Your task to perform on an android device: Go to battery settings Image 0: 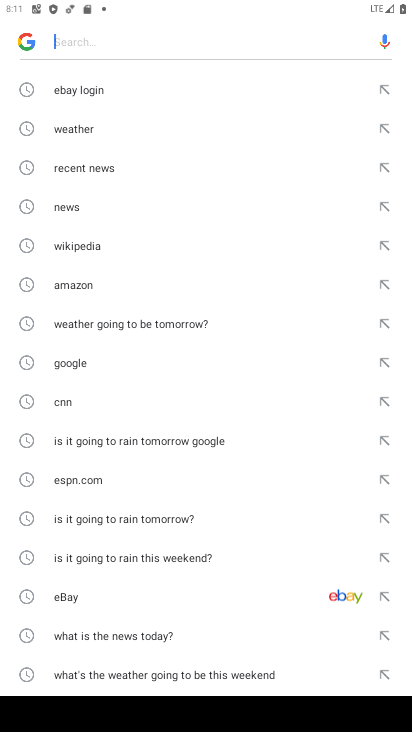
Step 0: press home button
Your task to perform on an android device: Go to battery settings Image 1: 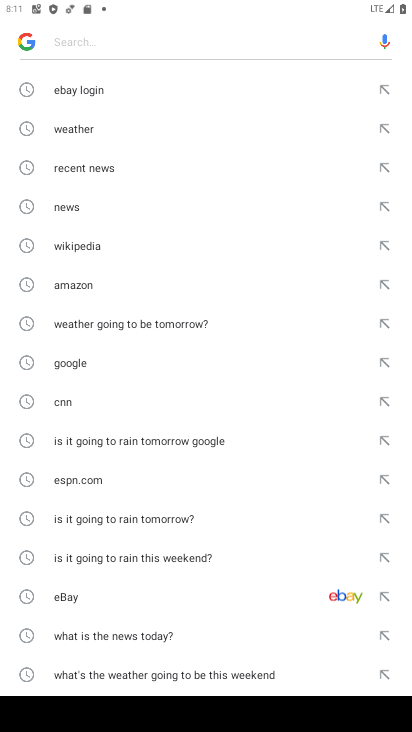
Step 1: press home button
Your task to perform on an android device: Go to battery settings Image 2: 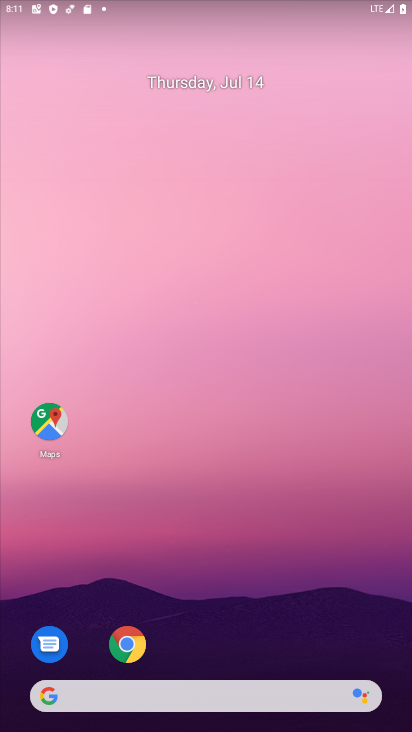
Step 2: drag from (176, 659) to (199, 101)
Your task to perform on an android device: Go to battery settings Image 3: 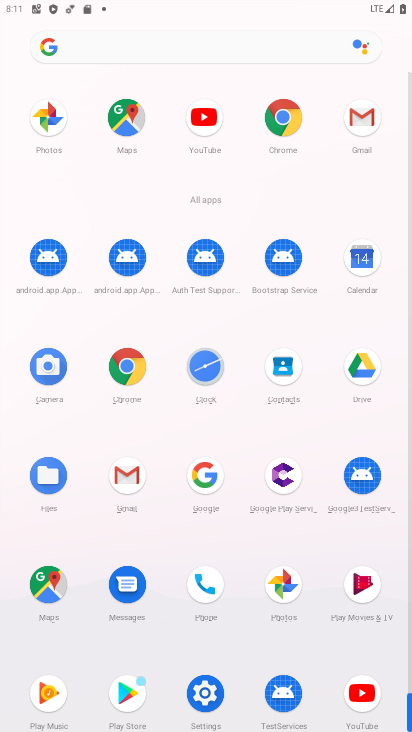
Step 3: drag from (164, 659) to (187, 421)
Your task to perform on an android device: Go to battery settings Image 4: 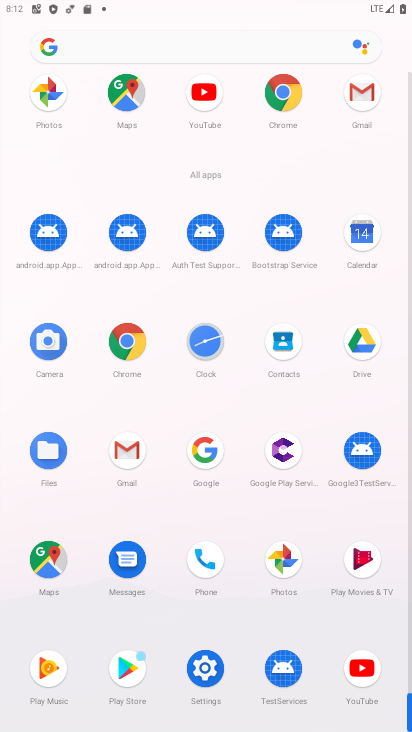
Step 4: click (208, 673)
Your task to perform on an android device: Go to battery settings Image 5: 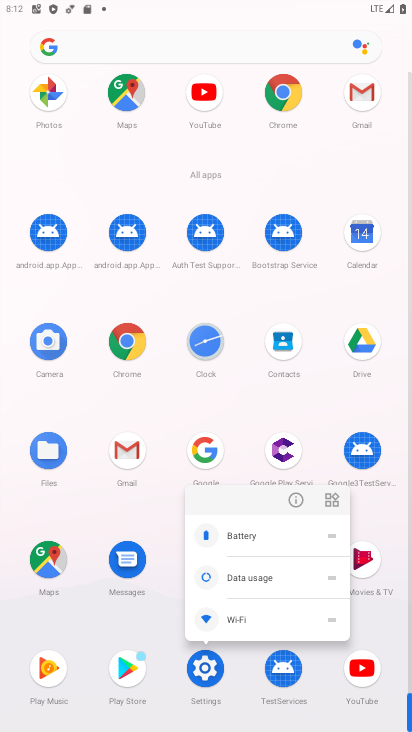
Step 5: click (295, 500)
Your task to perform on an android device: Go to battery settings Image 6: 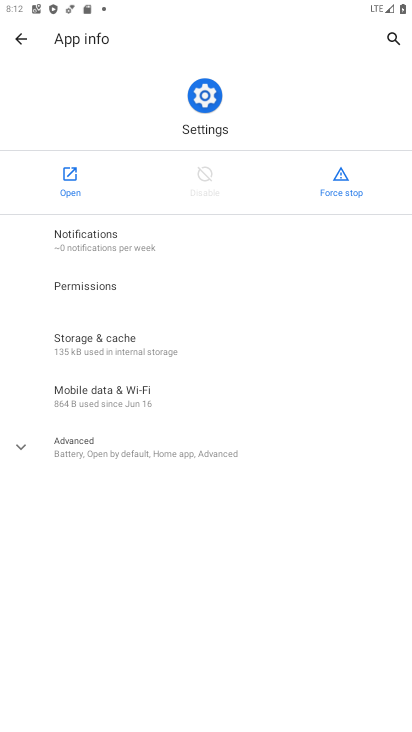
Step 6: drag from (219, 665) to (193, 317)
Your task to perform on an android device: Go to battery settings Image 7: 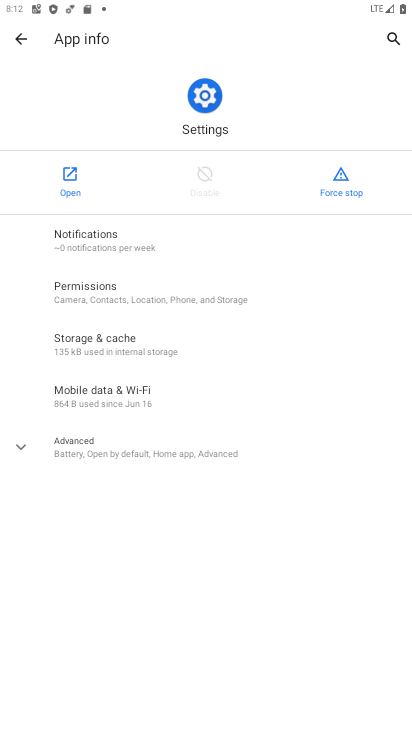
Step 7: click (83, 174)
Your task to perform on an android device: Go to battery settings Image 8: 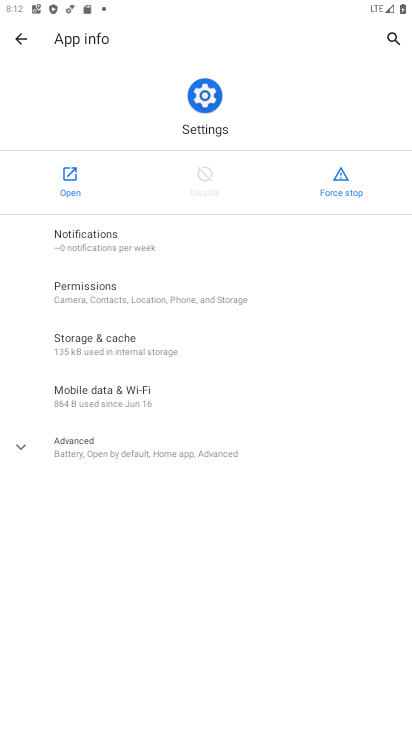
Step 8: click (81, 175)
Your task to perform on an android device: Go to battery settings Image 9: 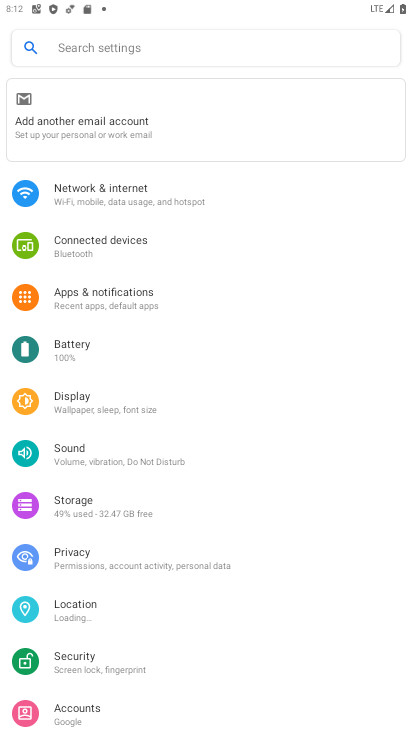
Step 9: click (90, 346)
Your task to perform on an android device: Go to battery settings Image 10: 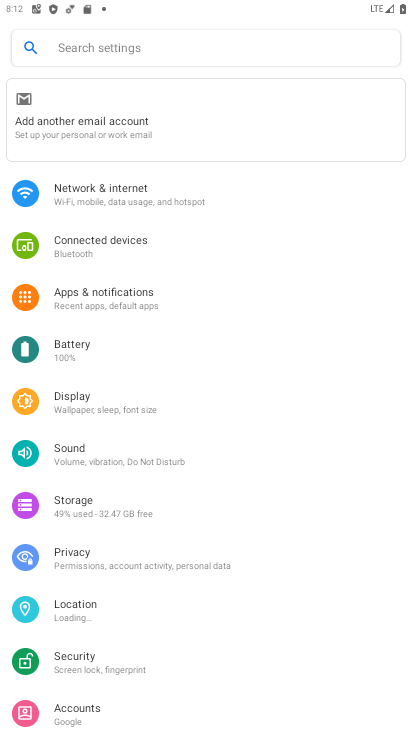
Step 10: click (89, 345)
Your task to perform on an android device: Go to battery settings Image 11: 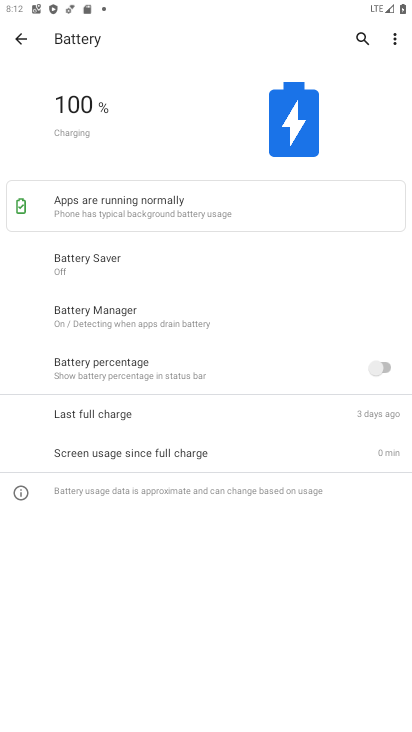
Step 11: task complete